Your task to perform on an android device: When is my next appointment? Image 0: 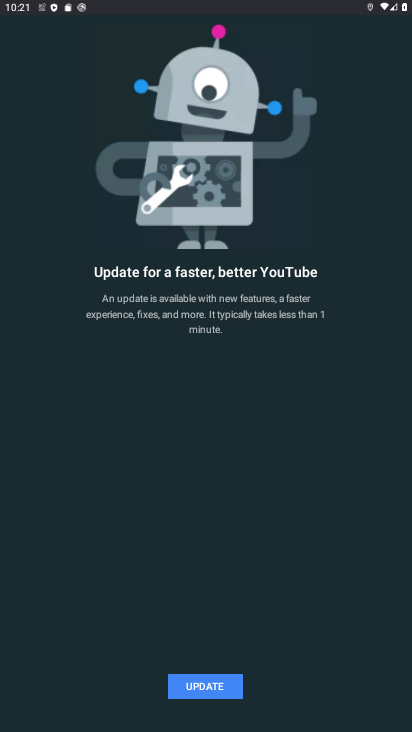
Step 0: press back button
Your task to perform on an android device: When is my next appointment? Image 1: 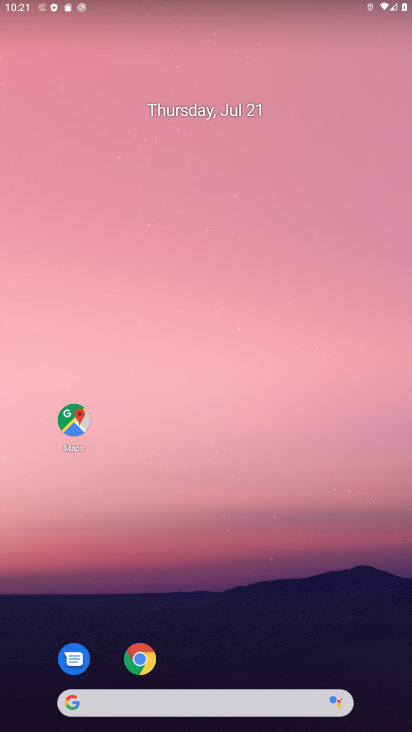
Step 1: drag from (214, 673) to (244, 243)
Your task to perform on an android device: When is my next appointment? Image 2: 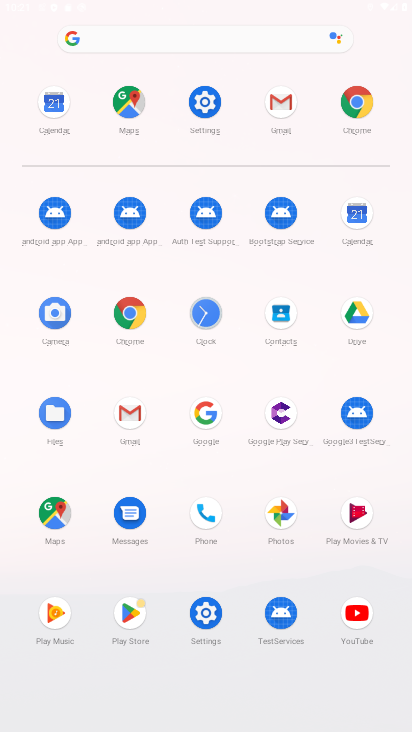
Step 2: click (369, 209)
Your task to perform on an android device: When is my next appointment? Image 3: 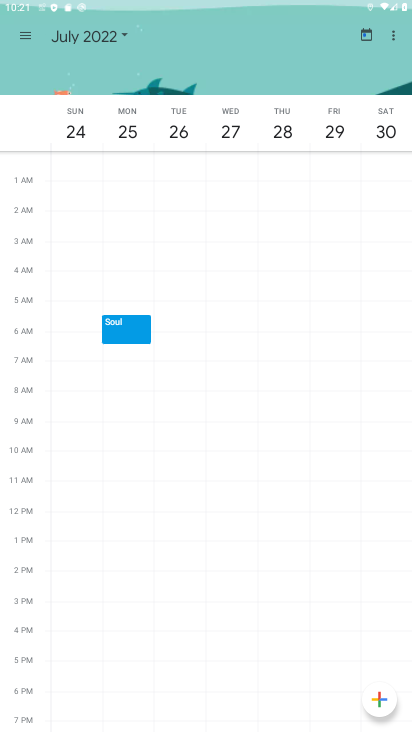
Step 3: task complete